Your task to perform on an android device: Open Maps and search for coffee Image 0: 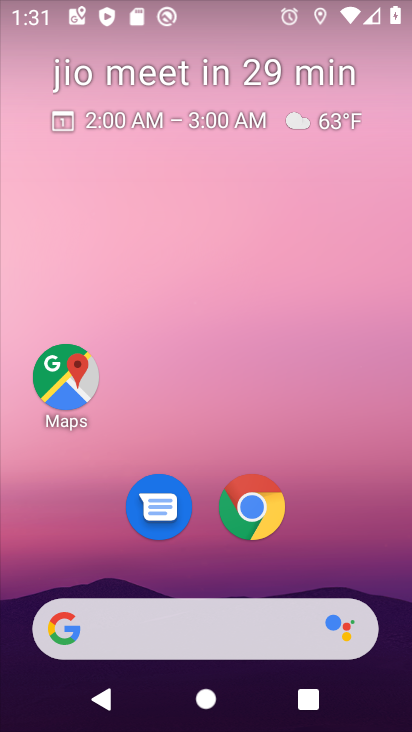
Step 0: click (62, 383)
Your task to perform on an android device: Open Maps and search for coffee Image 1: 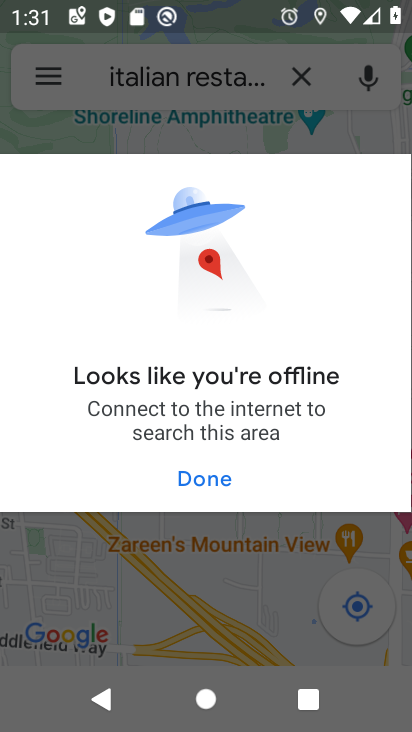
Step 1: click (212, 467)
Your task to perform on an android device: Open Maps and search for coffee Image 2: 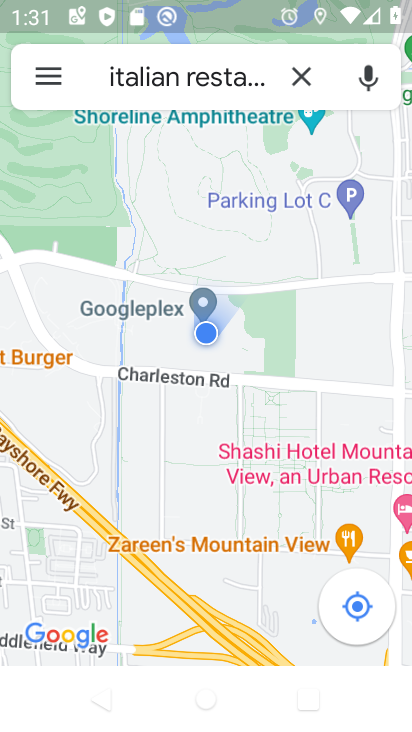
Step 2: click (298, 77)
Your task to perform on an android device: Open Maps and search for coffee Image 3: 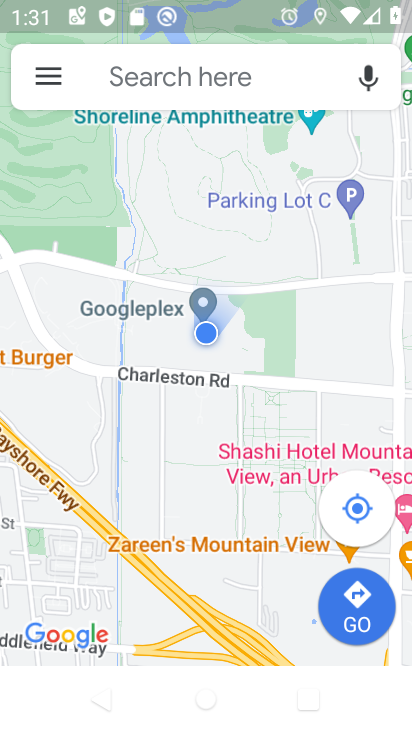
Step 3: click (160, 81)
Your task to perform on an android device: Open Maps and search for coffee Image 4: 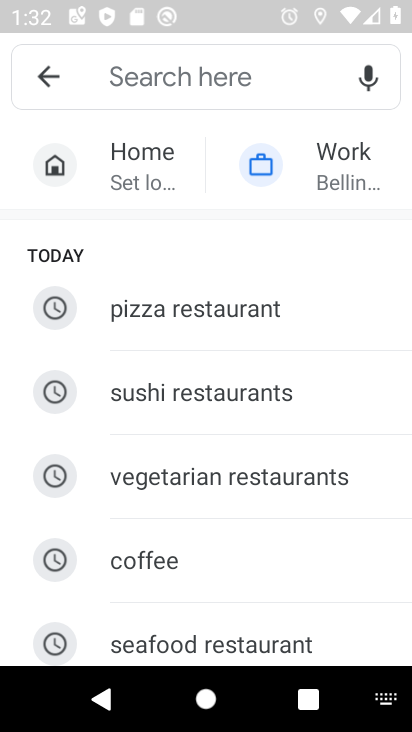
Step 4: click (164, 556)
Your task to perform on an android device: Open Maps and search for coffee Image 5: 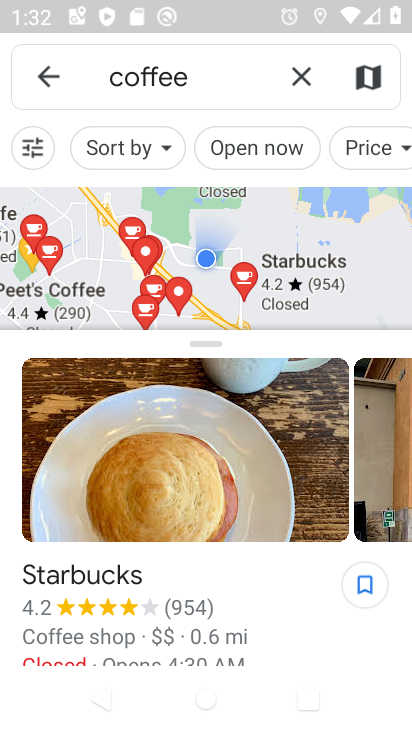
Step 5: task complete